Your task to perform on an android device: Open my contact list Image 0: 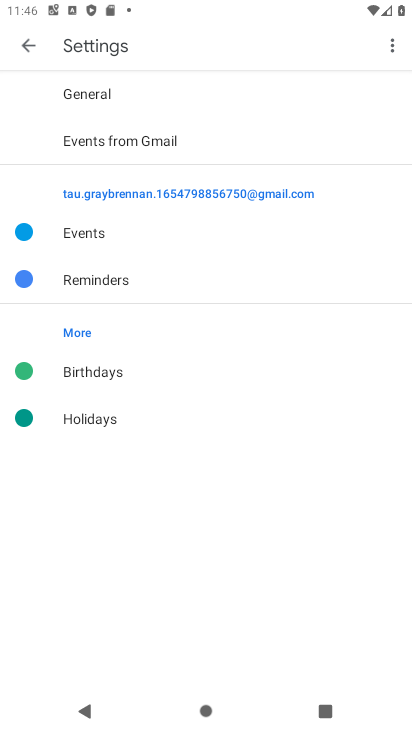
Step 0: press home button
Your task to perform on an android device: Open my contact list Image 1: 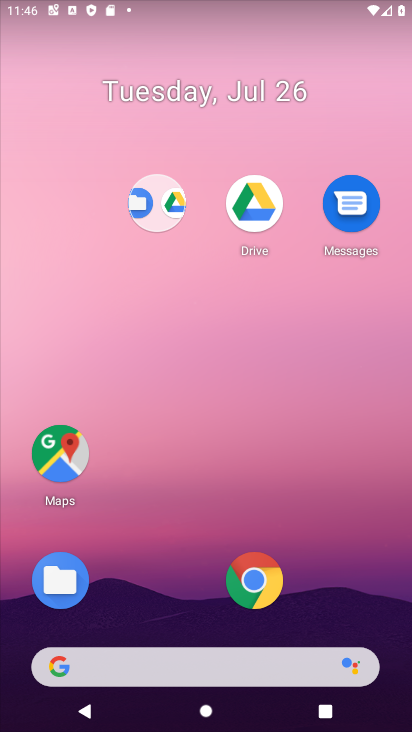
Step 1: drag from (148, 585) to (131, 254)
Your task to perform on an android device: Open my contact list Image 2: 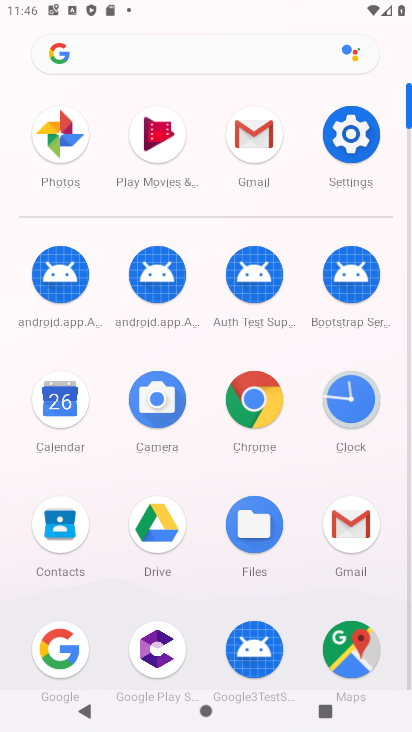
Step 2: click (72, 523)
Your task to perform on an android device: Open my contact list Image 3: 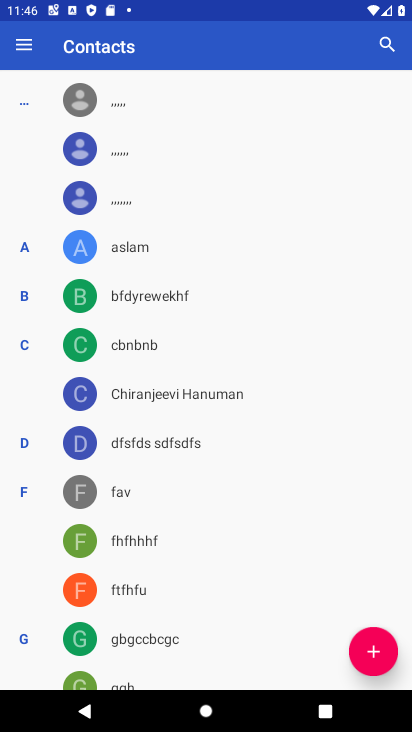
Step 3: task complete